Your task to perform on an android device: allow cookies in the chrome app Image 0: 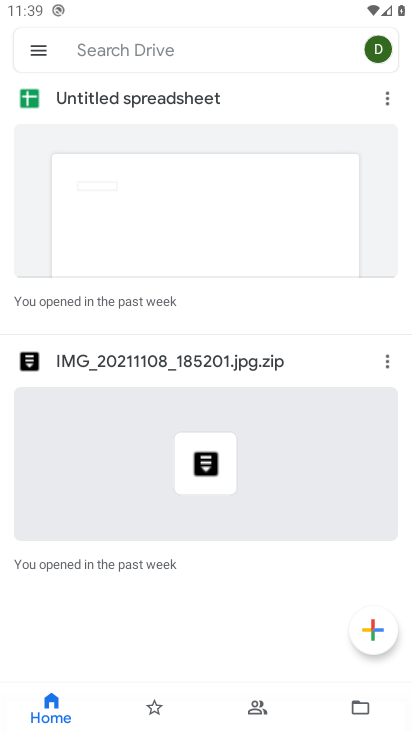
Step 0: press home button
Your task to perform on an android device: allow cookies in the chrome app Image 1: 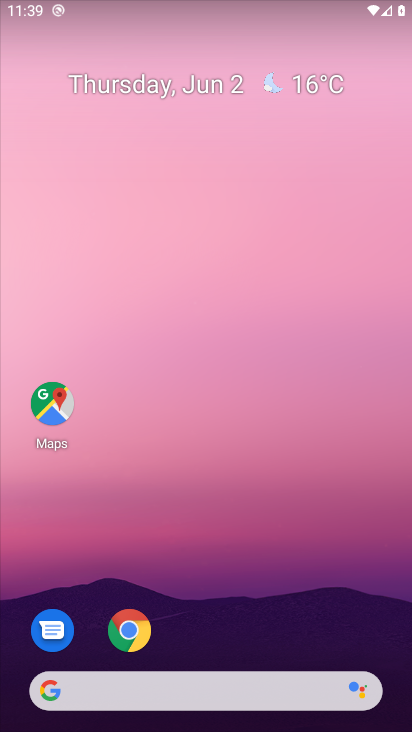
Step 1: click (158, 636)
Your task to perform on an android device: allow cookies in the chrome app Image 2: 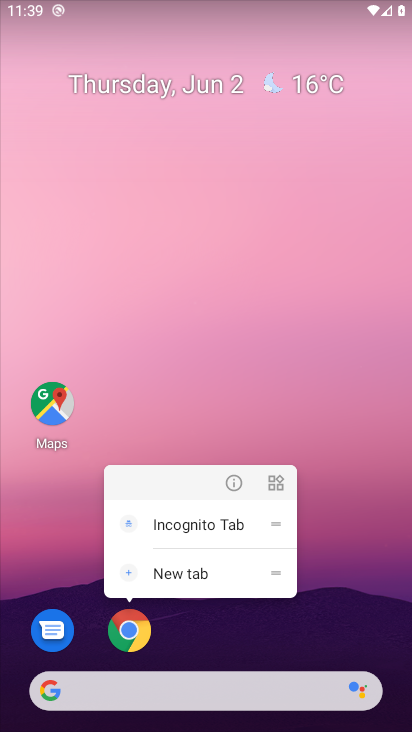
Step 2: click (129, 630)
Your task to perform on an android device: allow cookies in the chrome app Image 3: 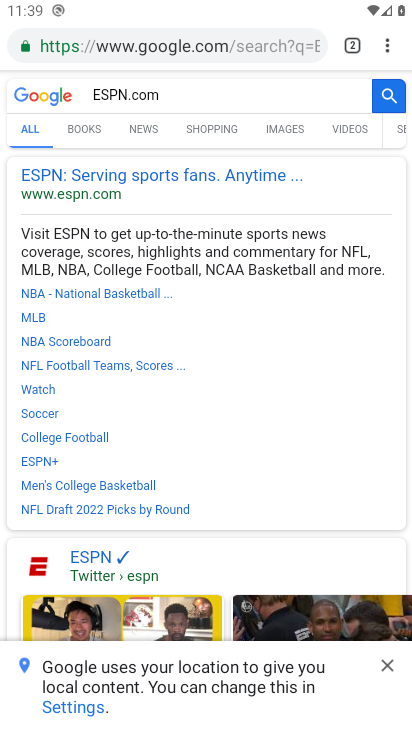
Step 3: click (389, 51)
Your task to perform on an android device: allow cookies in the chrome app Image 4: 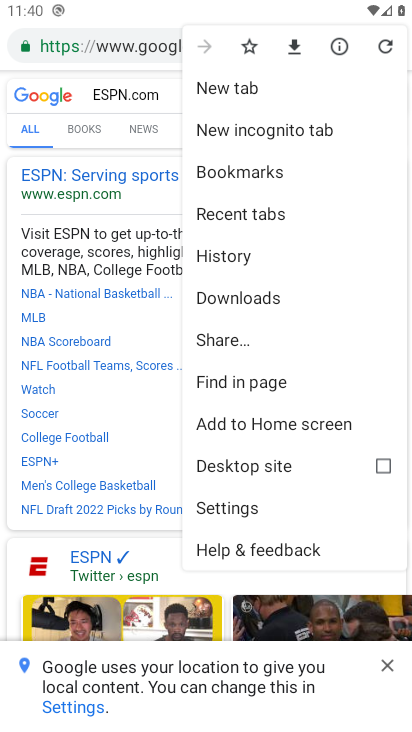
Step 4: click (242, 508)
Your task to perform on an android device: allow cookies in the chrome app Image 5: 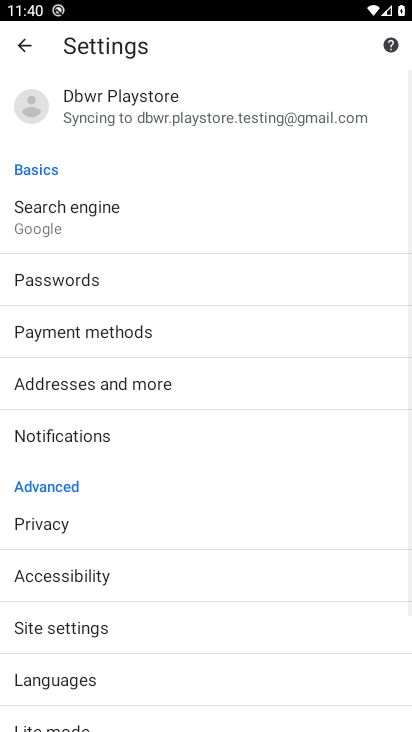
Step 5: click (97, 632)
Your task to perform on an android device: allow cookies in the chrome app Image 6: 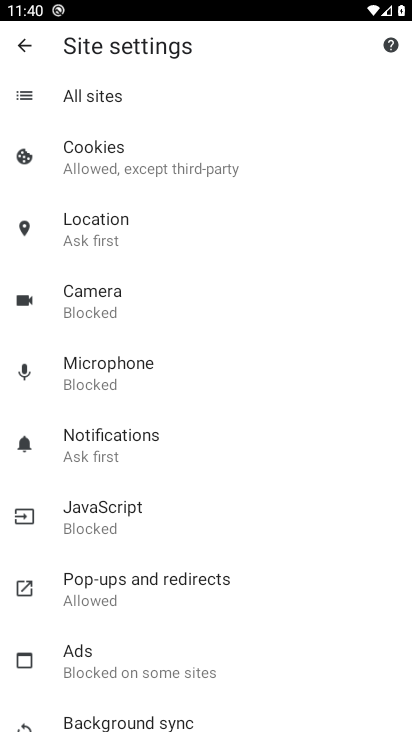
Step 6: click (175, 158)
Your task to perform on an android device: allow cookies in the chrome app Image 7: 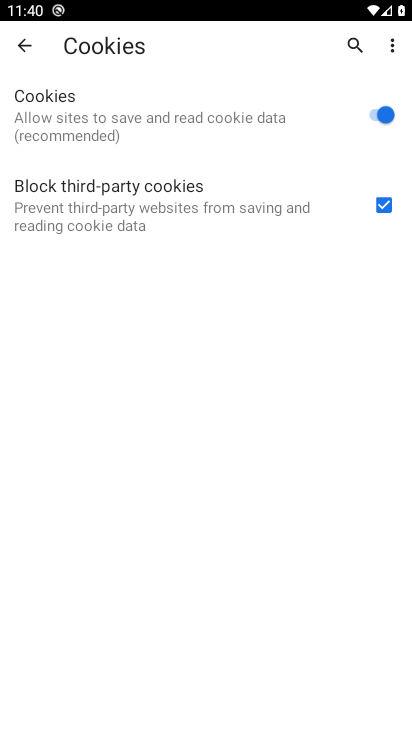
Step 7: task complete